Your task to perform on an android device: Go to Maps Image 0: 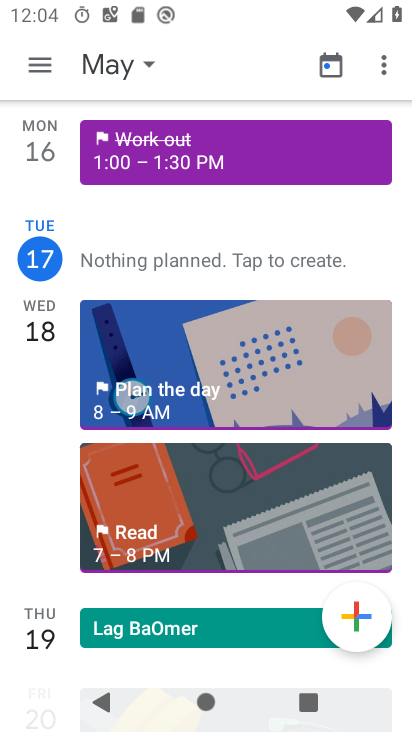
Step 0: press home button
Your task to perform on an android device: Go to Maps Image 1: 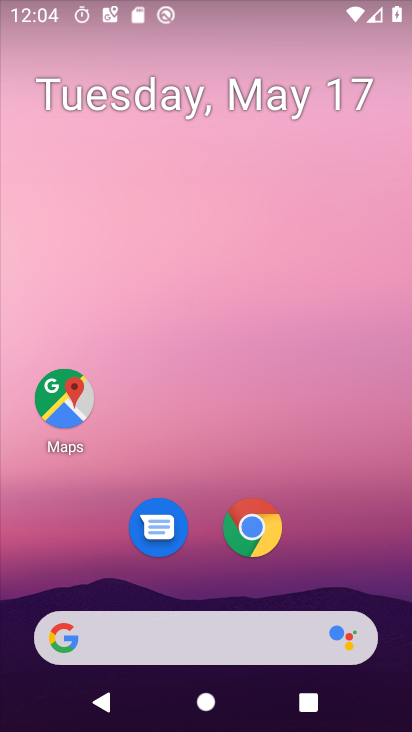
Step 1: click (73, 409)
Your task to perform on an android device: Go to Maps Image 2: 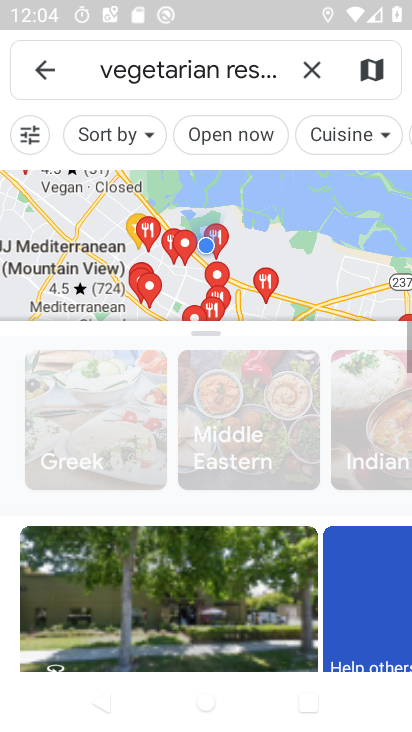
Step 2: click (311, 77)
Your task to perform on an android device: Go to Maps Image 3: 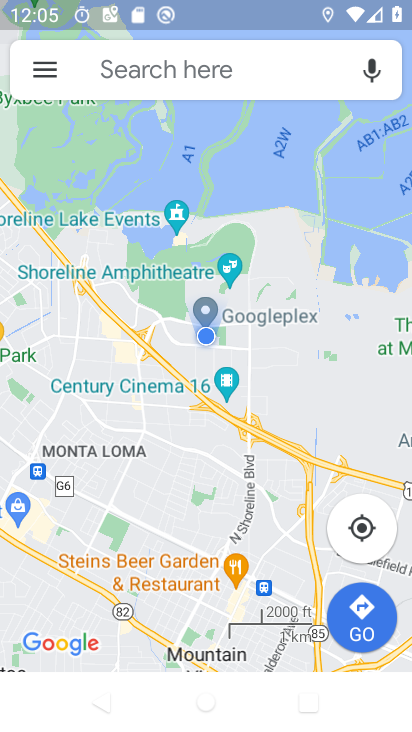
Step 3: task complete